Your task to perform on an android device: turn vacation reply on in the gmail app Image 0: 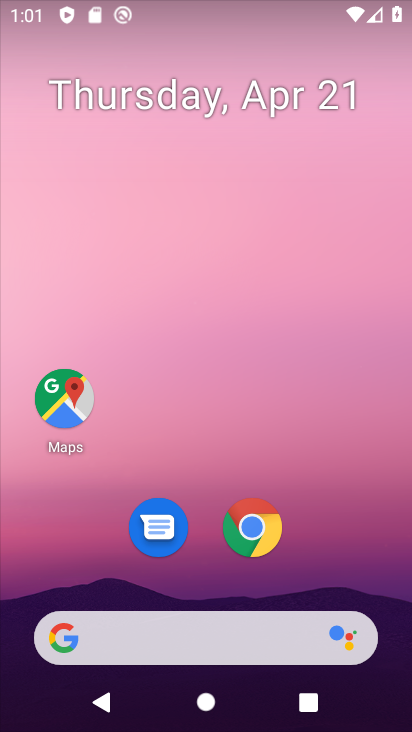
Step 0: drag from (349, 531) to (377, 111)
Your task to perform on an android device: turn vacation reply on in the gmail app Image 1: 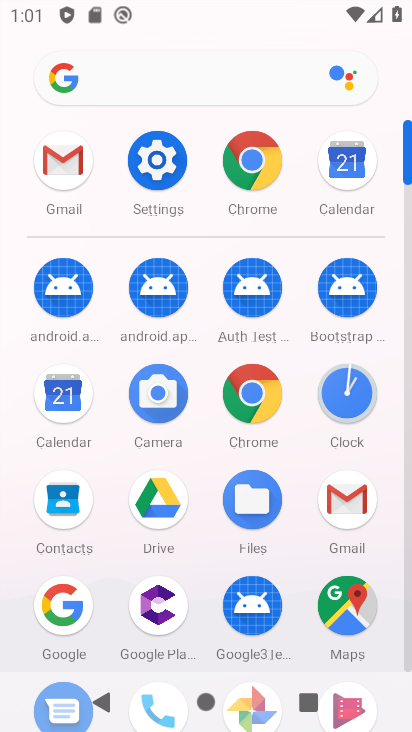
Step 1: click (322, 510)
Your task to perform on an android device: turn vacation reply on in the gmail app Image 2: 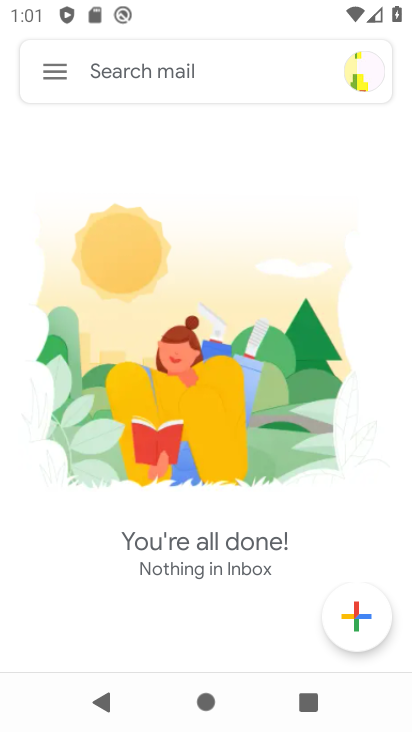
Step 2: click (56, 73)
Your task to perform on an android device: turn vacation reply on in the gmail app Image 3: 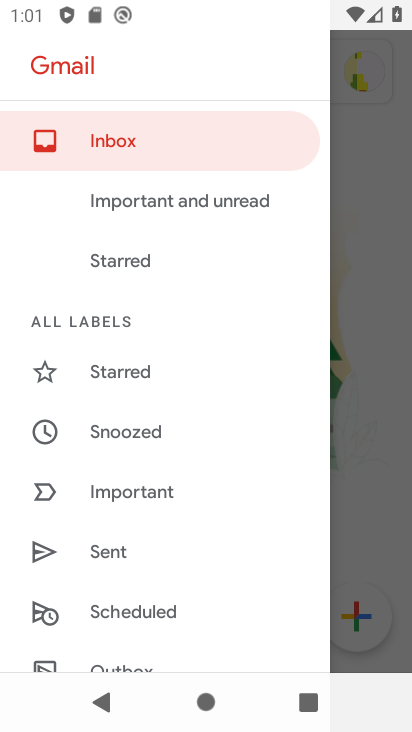
Step 3: drag from (245, 550) to (249, 361)
Your task to perform on an android device: turn vacation reply on in the gmail app Image 4: 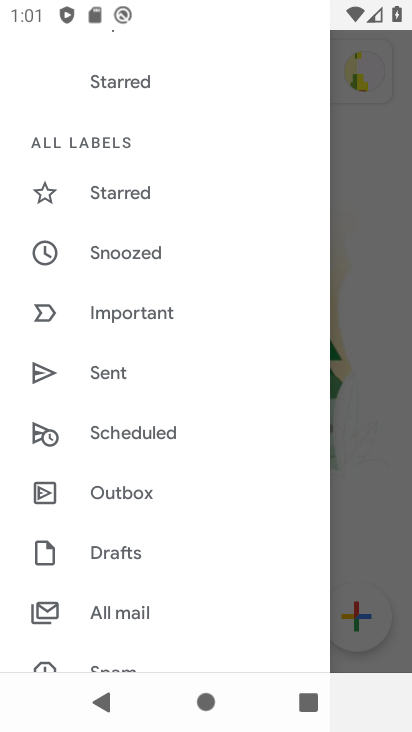
Step 4: drag from (249, 560) to (249, 365)
Your task to perform on an android device: turn vacation reply on in the gmail app Image 5: 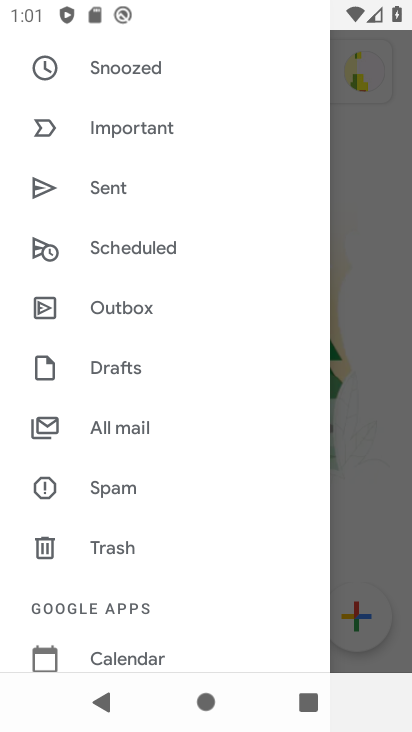
Step 5: drag from (255, 606) to (278, 417)
Your task to perform on an android device: turn vacation reply on in the gmail app Image 6: 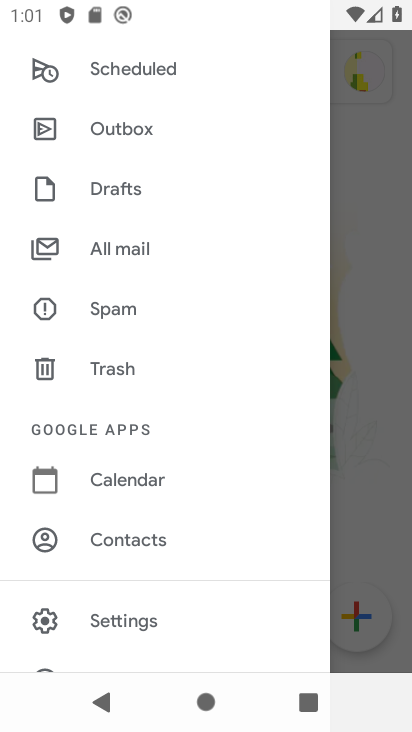
Step 6: drag from (260, 630) to (260, 481)
Your task to perform on an android device: turn vacation reply on in the gmail app Image 7: 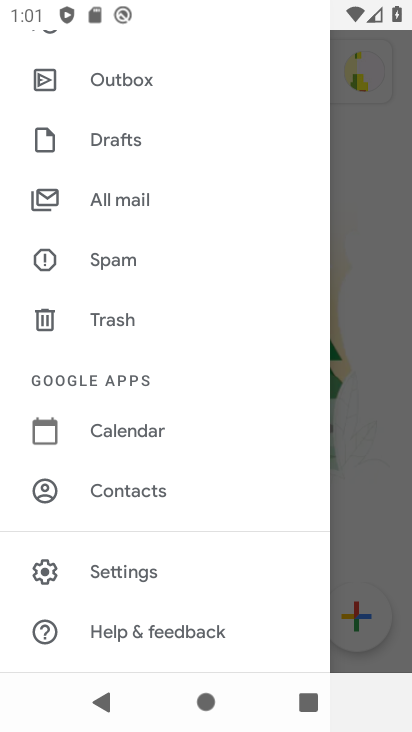
Step 7: click (155, 568)
Your task to perform on an android device: turn vacation reply on in the gmail app Image 8: 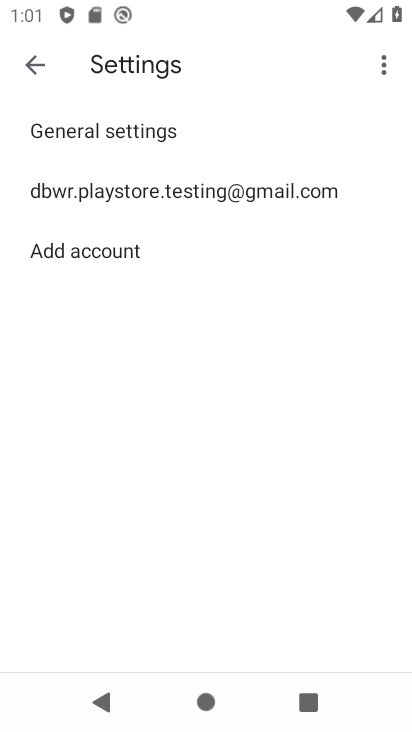
Step 8: click (265, 189)
Your task to perform on an android device: turn vacation reply on in the gmail app Image 9: 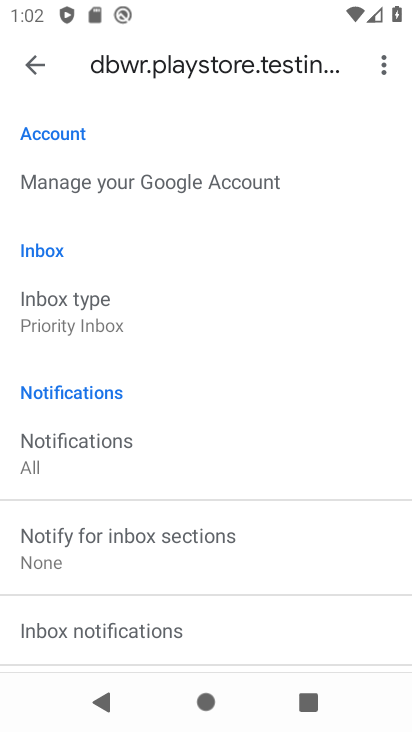
Step 9: drag from (308, 565) to (309, 398)
Your task to perform on an android device: turn vacation reply on in the gmail app Image 10: 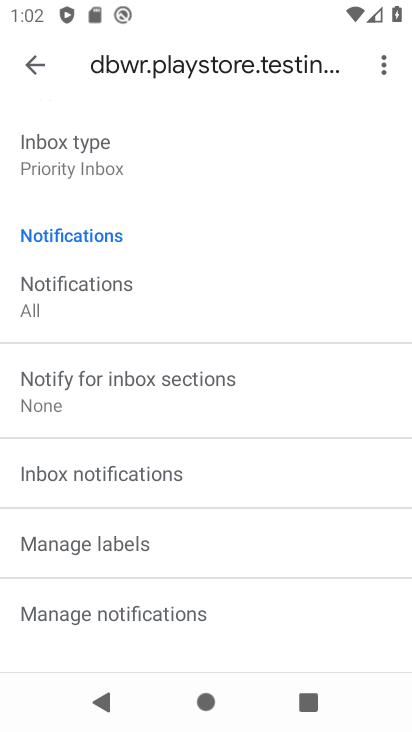
Step 10: drag from (314, 592) to (328, 404)
Your task to perform on an android device: turn vacation reply on in the gmail app Image 11: 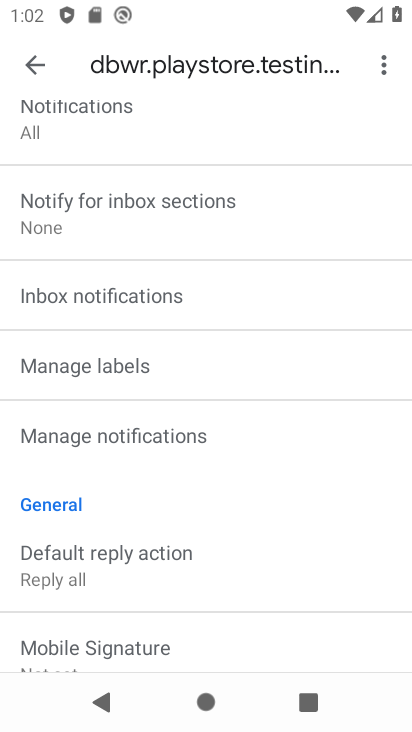
Step 11: drag from (315, 571) to (312, 412)
Your task to perform on an android device: turn vacation reply on in the gmail app Image 12: 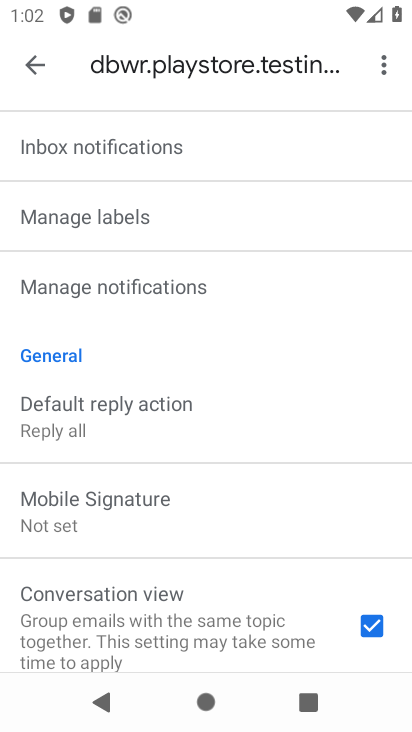
Step 12: drag from (304, 572) to (311, 366)
Your task to perform on an android device: turn vacation reply on in the gmail app Image 13: 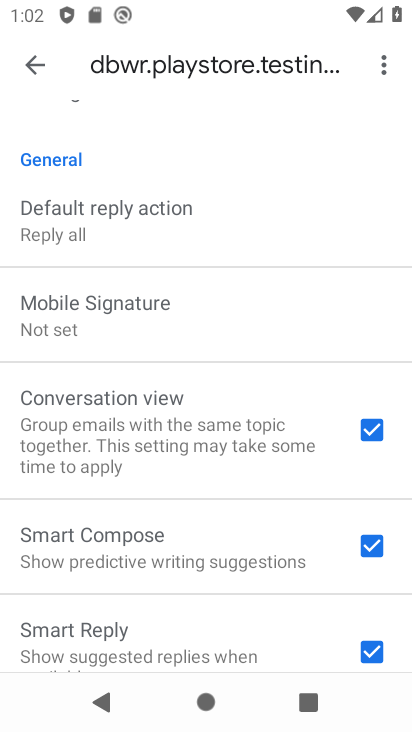
Step 13: drag from (293, 611) to (309, 396)
Your task to perform on an android device: turn vacation reply on in the gmail app Image 14: 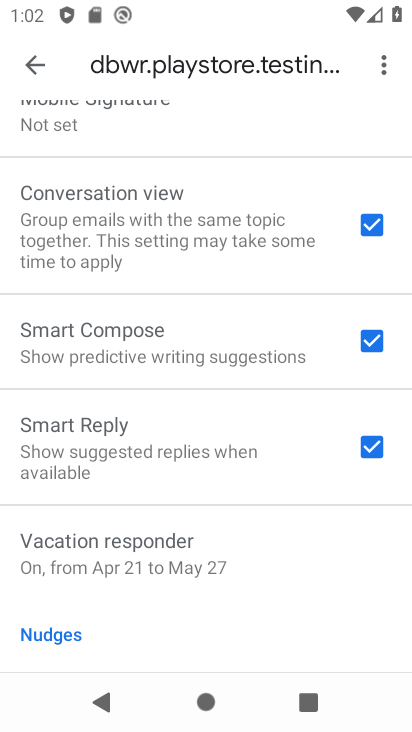
Step 14: drag from (290, 589) to (295, 410)
Your task to perform on an android device: turn vacation reply on in the gmail app Image 15: 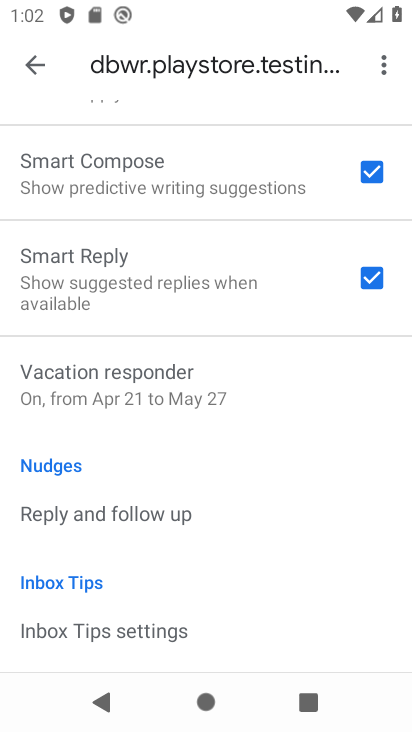
Step 15: drag from (300, 568) to (315, 359)
Your task to perform on an android device: turn vacation reply on in the gmail app Image 16: 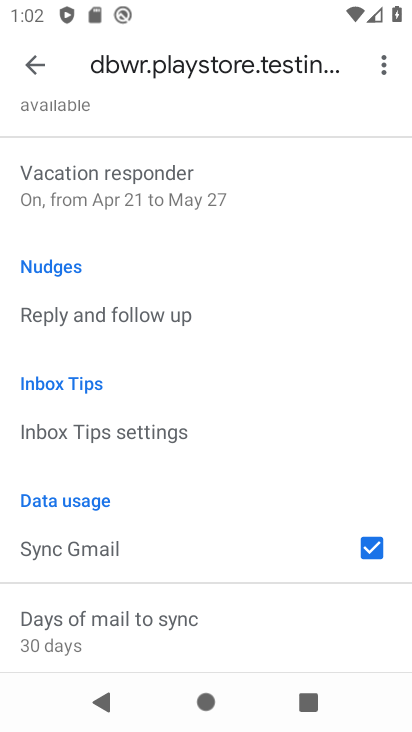
Step 16: drag from (297, 606) to (306, 341)
Your task to perform on an android device: turn vacation reply on in the gmail app Image 17: 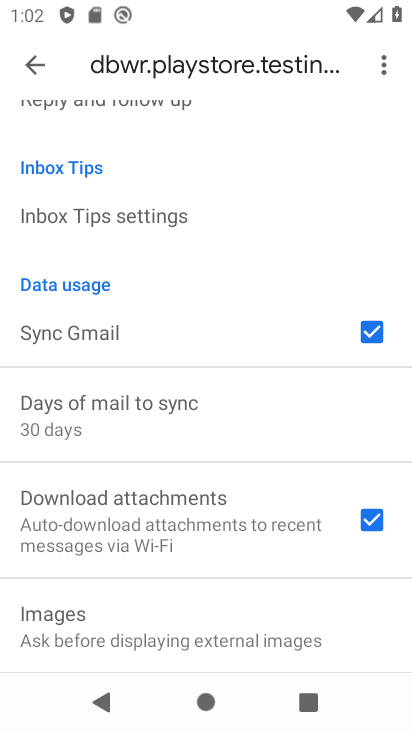
Step 17: drag from (288, 277) to (294, 501)
Your task to perform on an android device: turn vacation reply on in the gmail app Image 18: 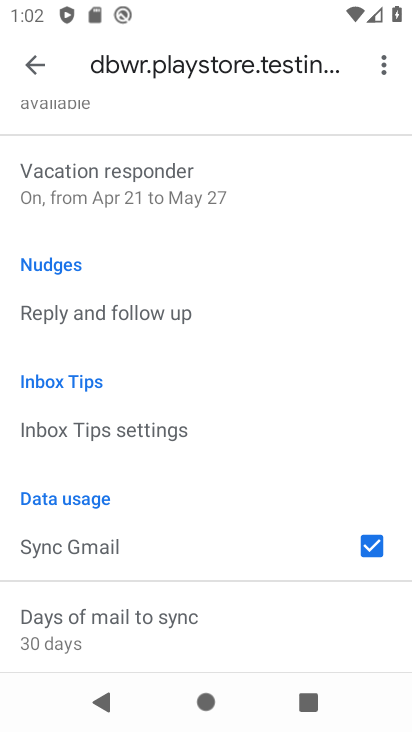
Step 18: drag from (289, 250) to (285, 489)
Your task to perform on an android device: turn vacation reply on in the gmail app Image 19: 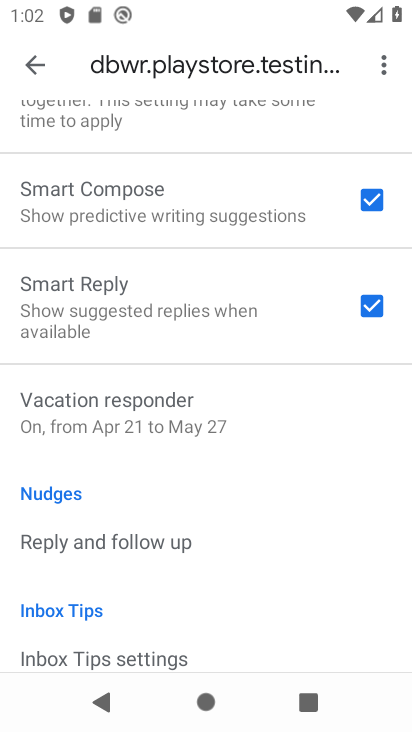
Step 19: click (183, 420)
Your task to perform on an android device: turn vacation reply on in the gmail app Image 20: 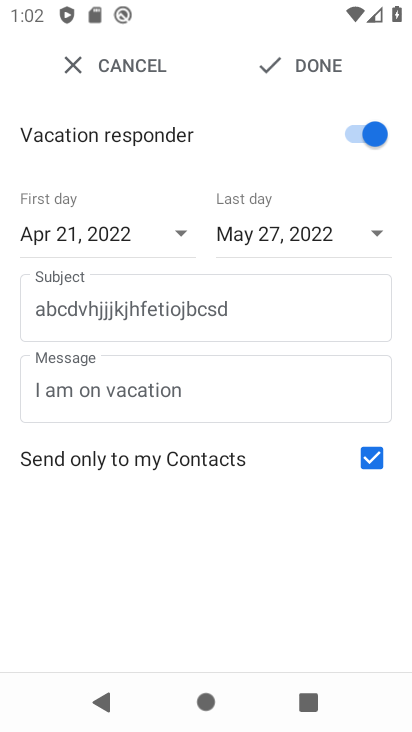
Step 20: task complete